Your task to perform on an android device: turn off improve location accuracy Image 0: 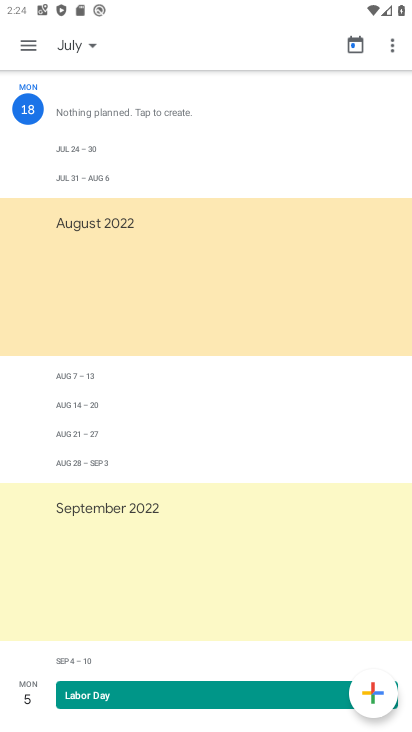
Step 0: press home button
Your task to perform on an android device: turn off improve location accuracy Image 1: 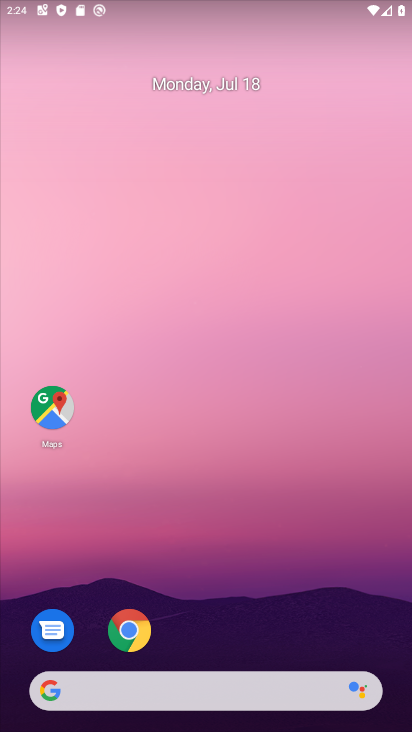
Step 1: drag from (380, 635) to (320, 203)
Your task to perform on an android device: turn off improve location accuracy Image 2: 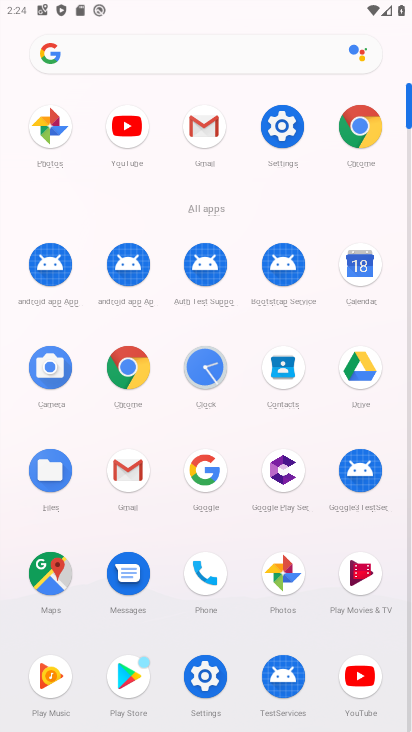
Step 2: click (201, 675)
Your task to perform on an android device: turn off improve location accuracy Image 3: 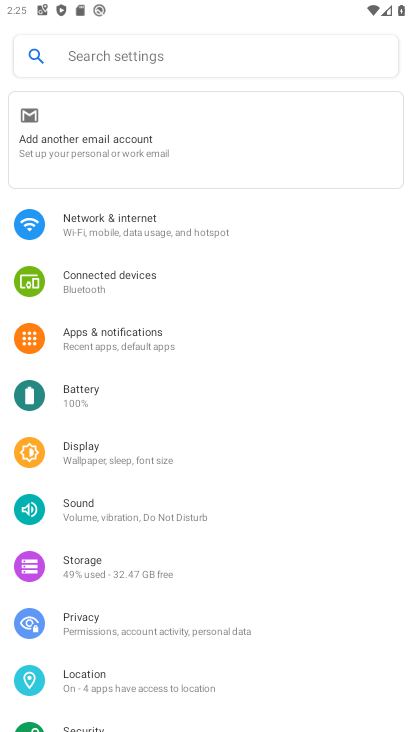
Step 3: click (90, 682)
Your task to perform on an android device: turn off improve location accuracy Image 4: 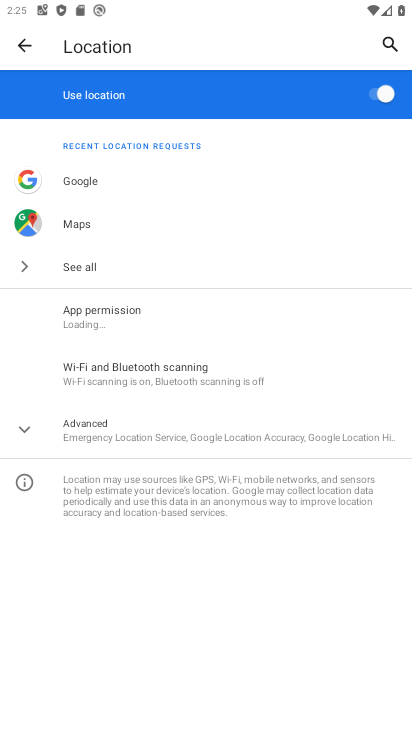
Step 4: click (24, 433)
Your task to perform on an android device: turn off improve location accuracy Image 5: 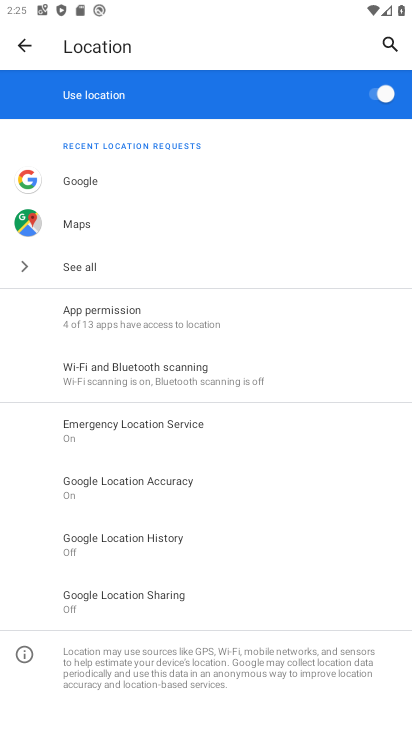
Step 5: click (93, 484)
Your task to perform on an android device: turn off improve location accuracy Image 6: 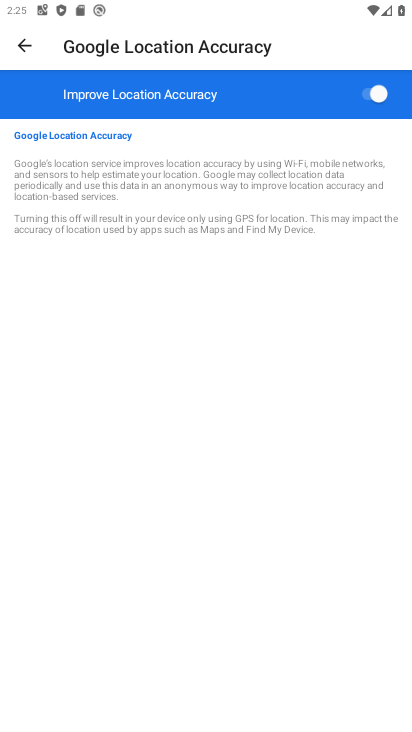
Step 6: click (363, 92)
Your task to perform on an android device: turn off improve location accuracy Image 7: 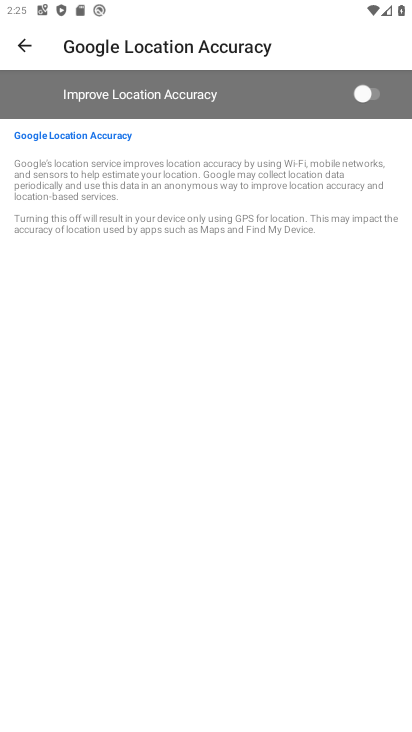
Step 7: task complete